Your task to perform on an android device: turn off notifications settings in the gmail app Image 0: 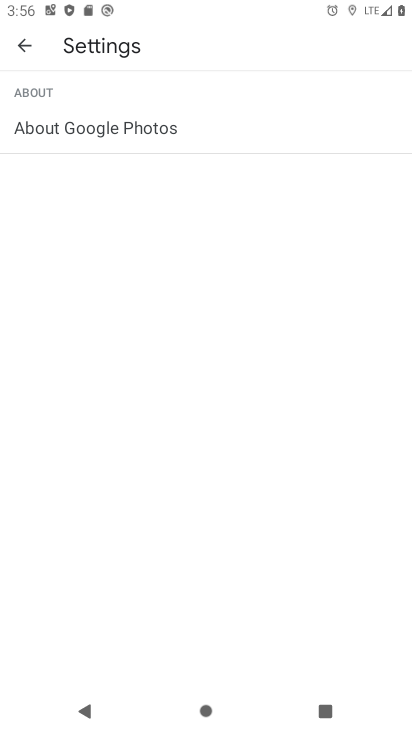
Step 0: press home button
Your task to perform on an android device: turn off notifications settings in the gmail app Image 1: 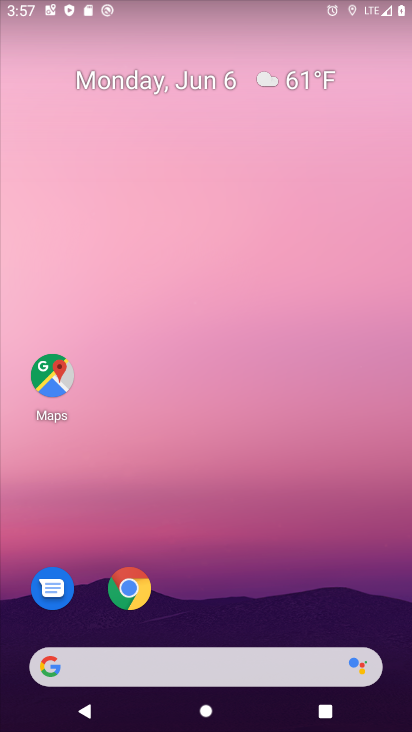
Step 1: drag from (223, 430) to (197, 37)
Your task to perform on an android device: turn off notifications settings in the gmail app Image 2: 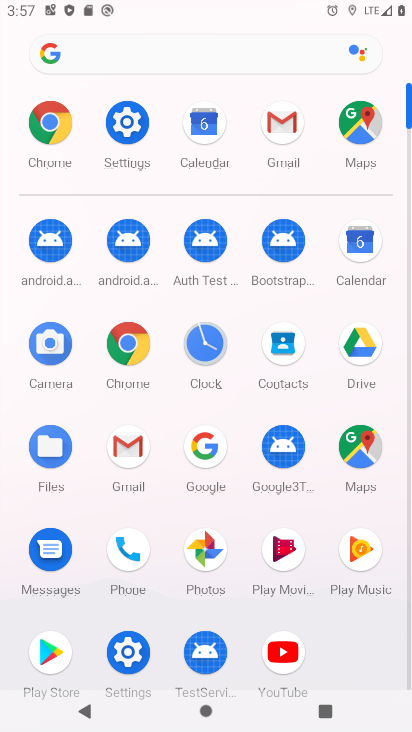
Step 2: click (279, 122)
Your task to perform on an android device: turn off notifications settings in the gmail app Image 3: 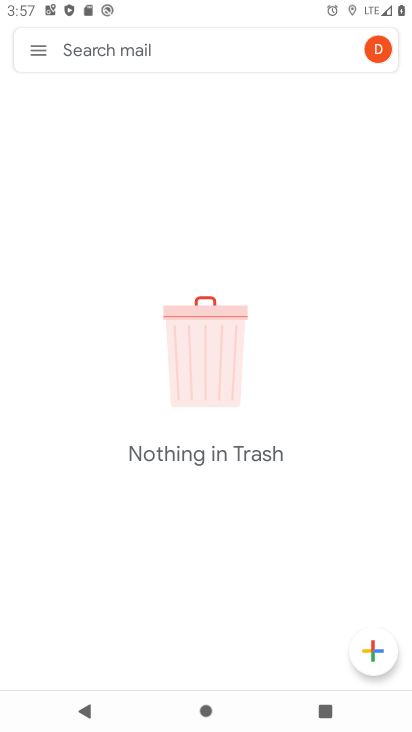
Step 3: click (36, 48)
Your task to perform on an android device: turn off notifications settings in the gmail app Image 4: 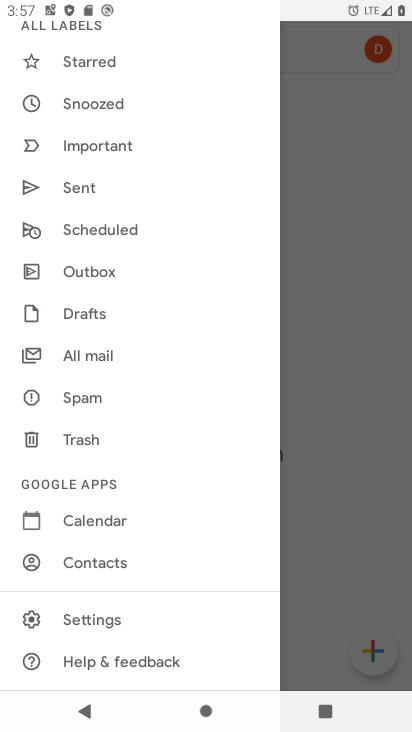
Step 4: click (108, 611)
Your task to perform on an android device: turn off notifications settings in the gmail app Image 5: 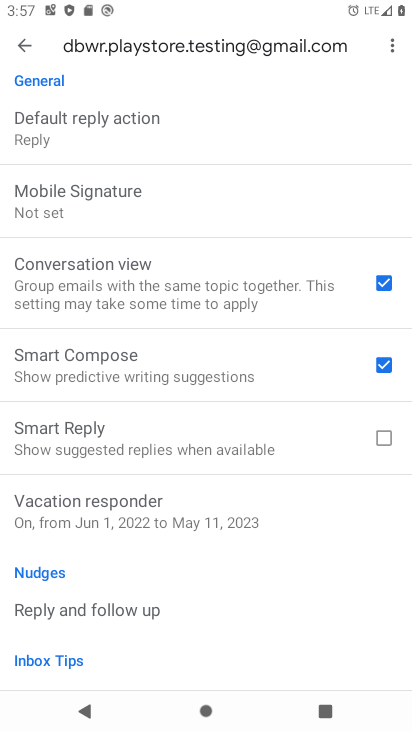
Step 5: drag from (209, 617) to (181, 710)
Your task to perform on an android device: turn off notifications settings in the gmail app Image 6: 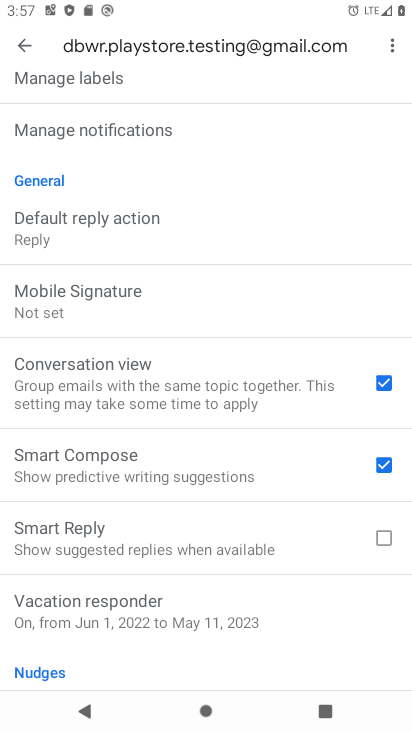
Step 6: click (189, 142)
Your task to perform on an android device: turn off notifications settings in the gmail app Image 7: 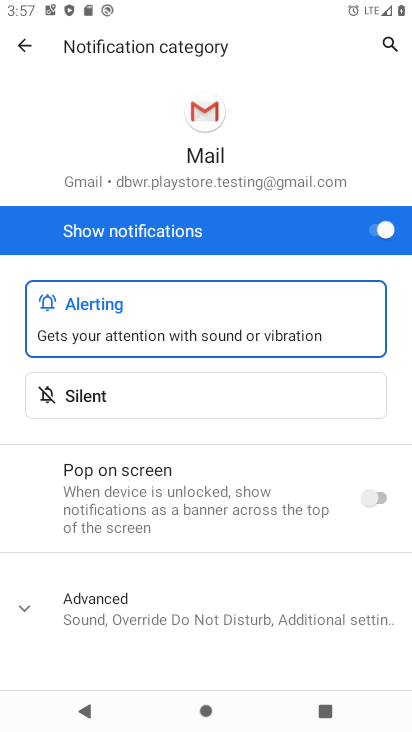
Step 7: task complete